Your task to perform on an android device: What's the news in China? Image 0: 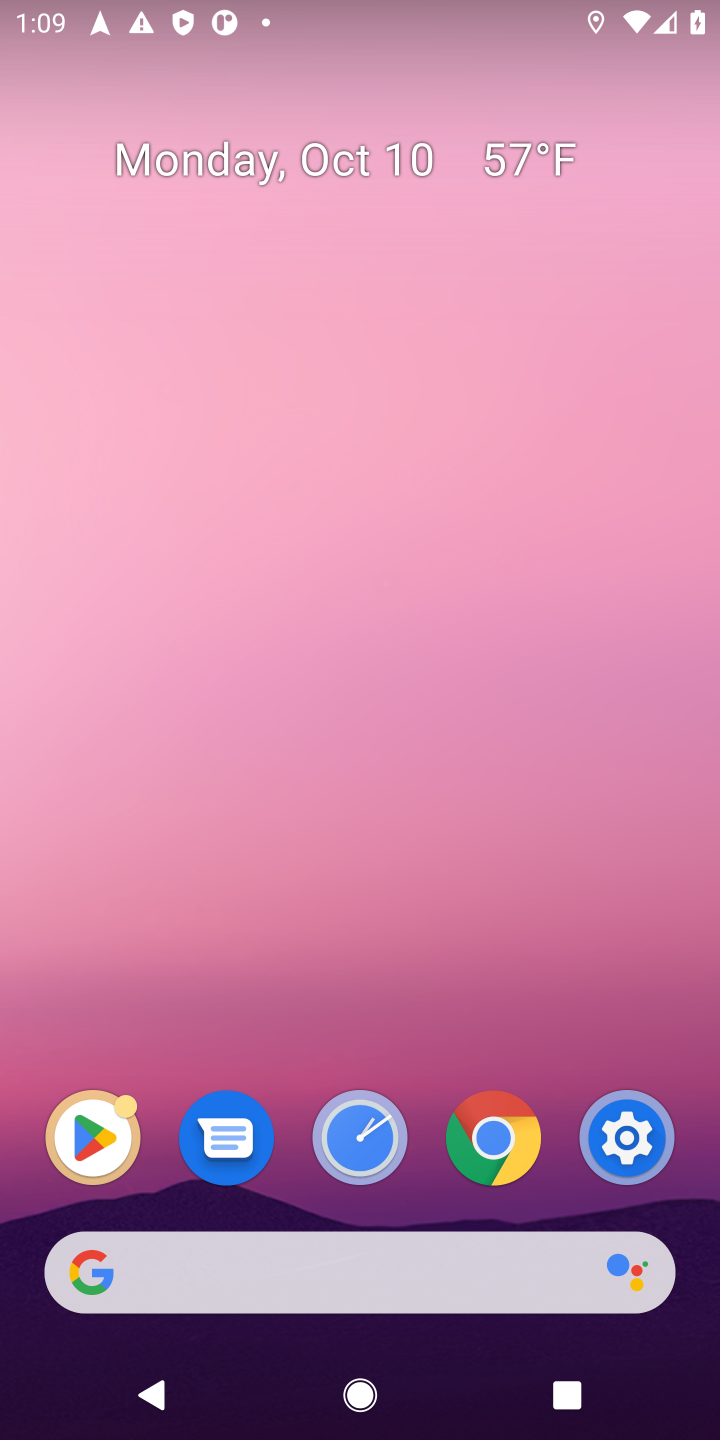
Step 0: click (415, 1289)
Your task to perform on an android device: What's the news in China? Image 1: 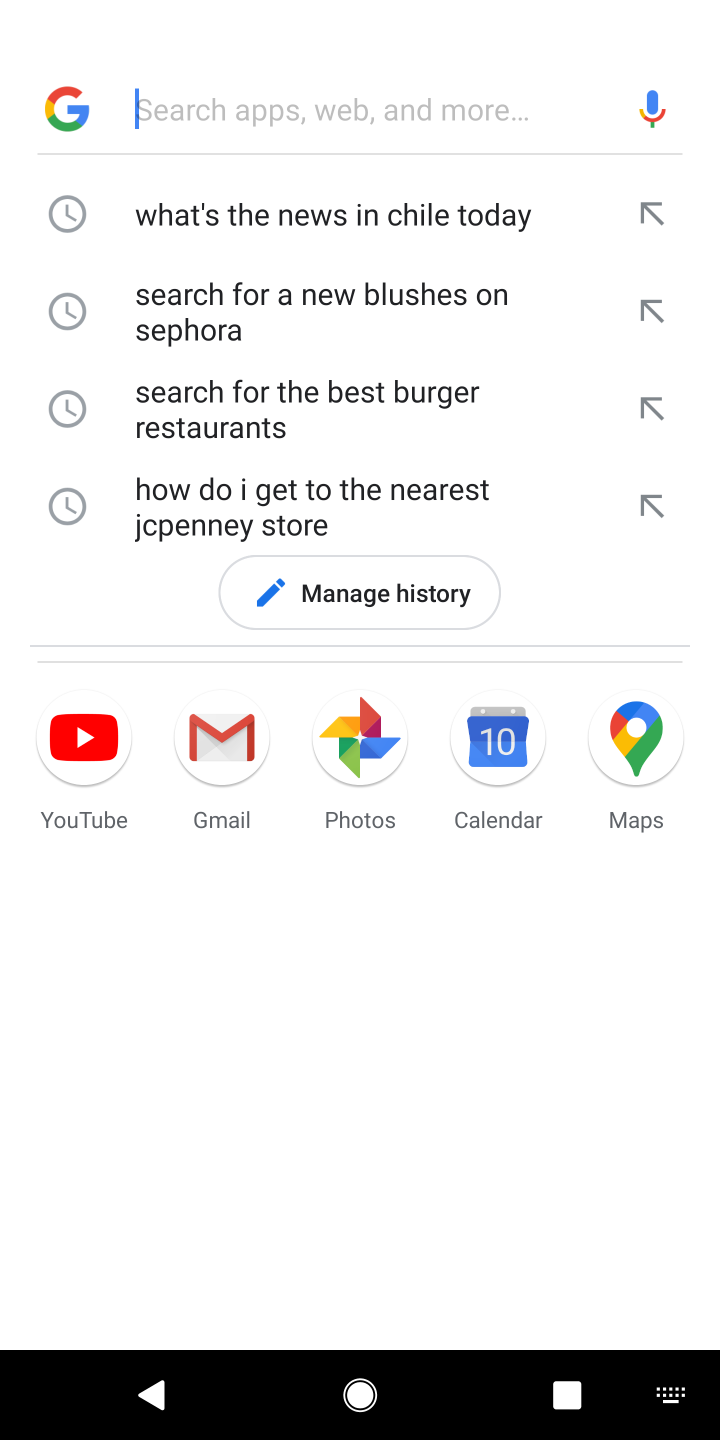
Step 1: type "What's the news in China?"
Your task to perform on an android device: What's the news in China? Image 2: 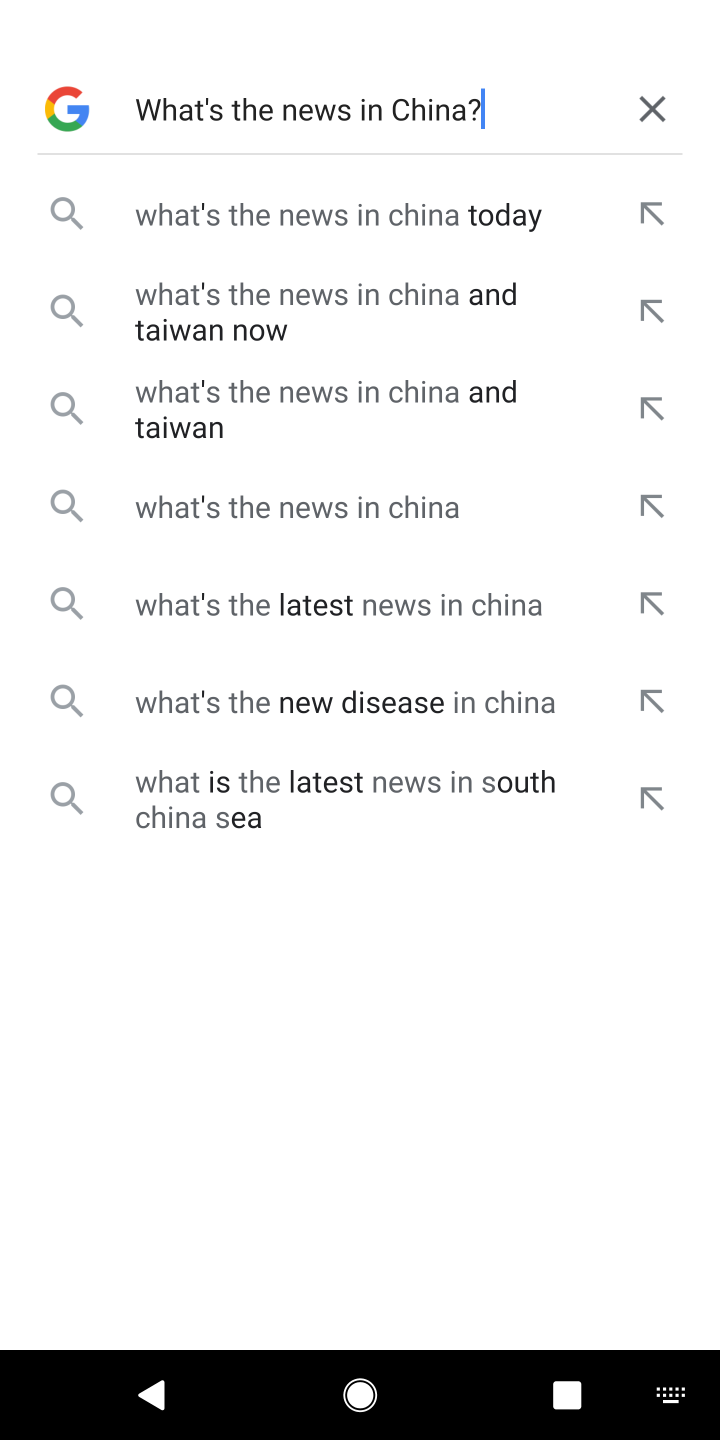
Step 2: click (285, 206)
Your task to perform on an android device: What's the news in China? Image 3: 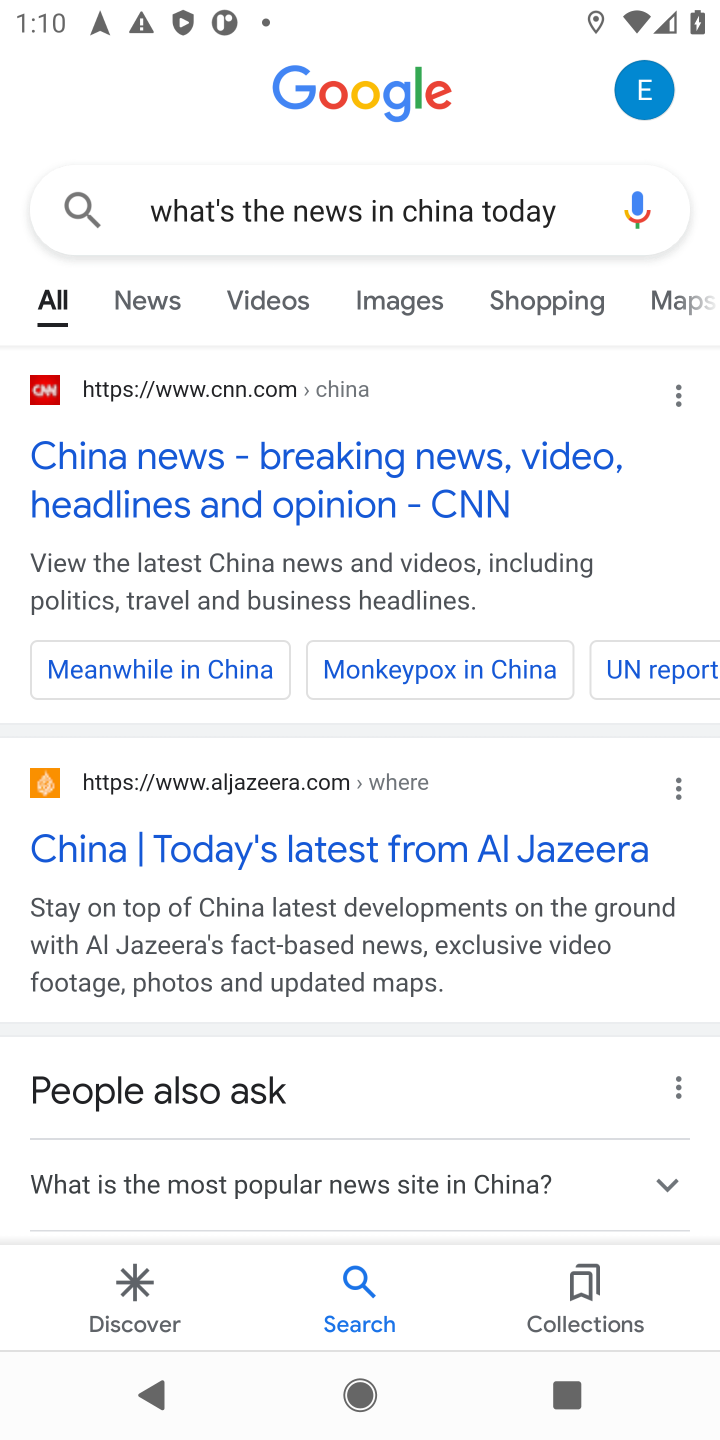
Step 3: click (249, 477)
Your task to perform on an android device: What's the news in China? Image 4: 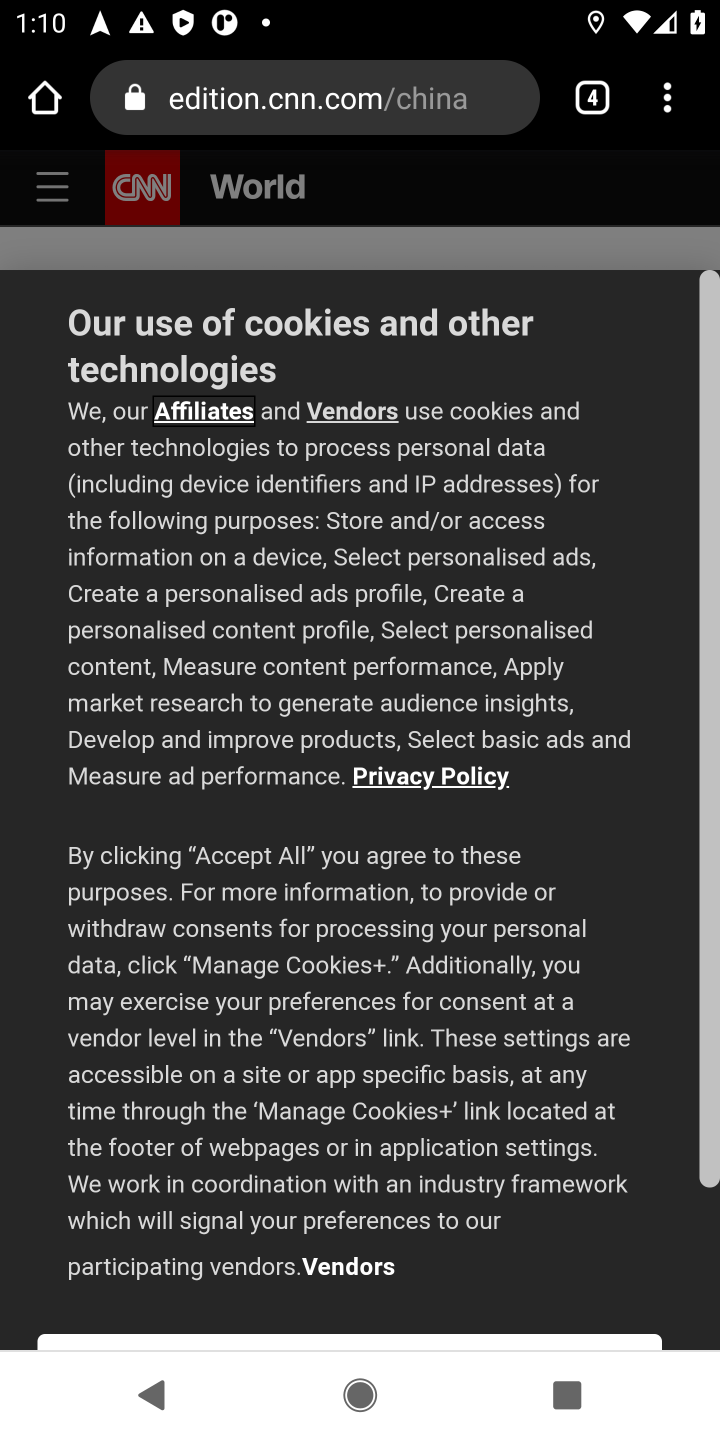
Step 4: drag from (499, 1231) to (477, 968)
Your task to perform on an android device: What's the news in China? Image 5: 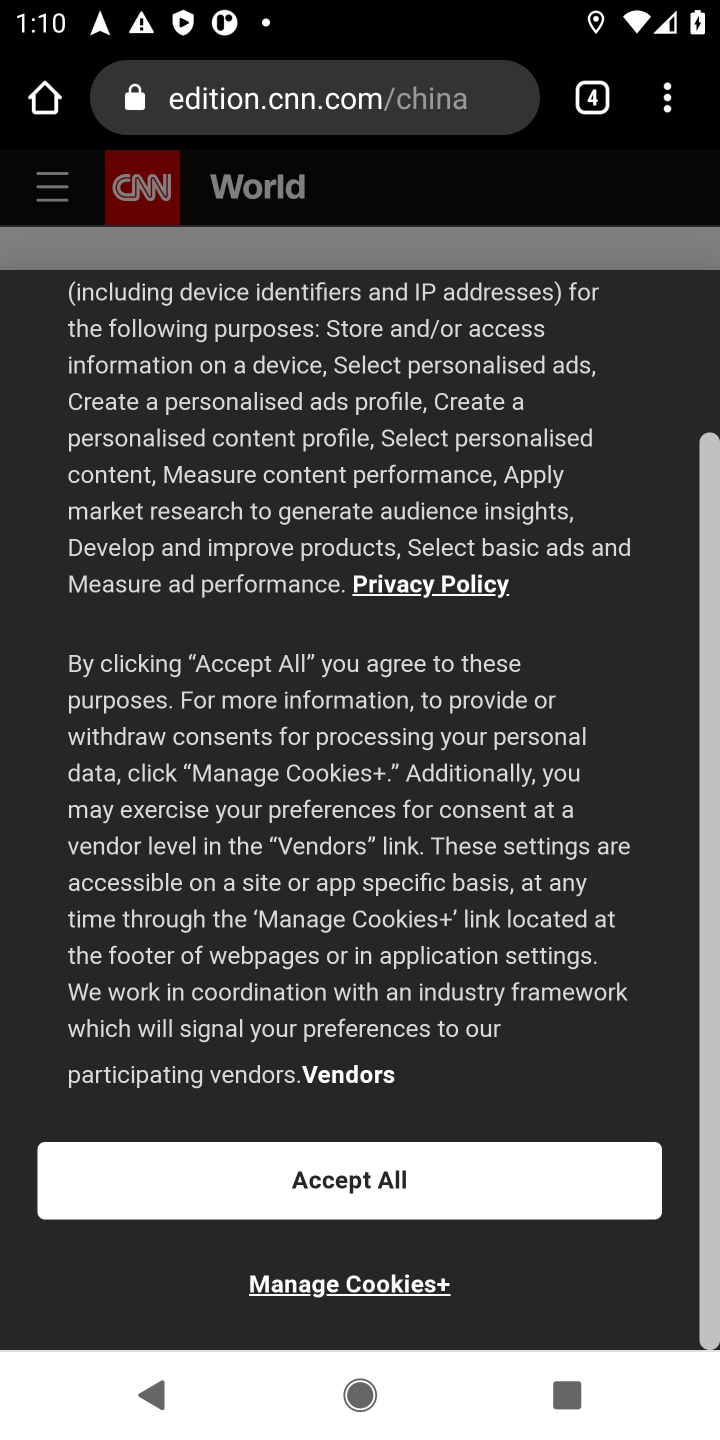
Step 5: click (403, 1174)
Your task to perform on an android device: What's the news in China? Image 6: 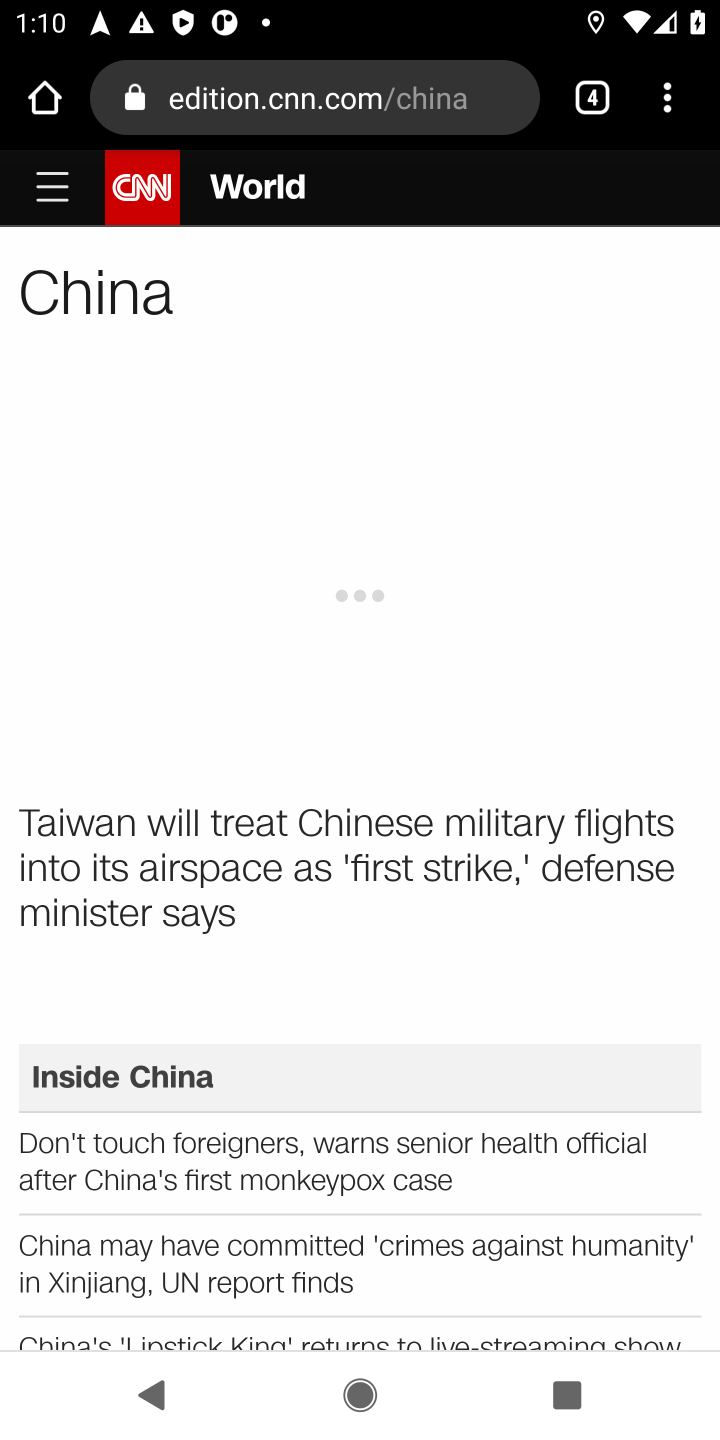
Step 6: task complete